Your task to perform on an android device: Show me popular games on the Play Store Image 0: 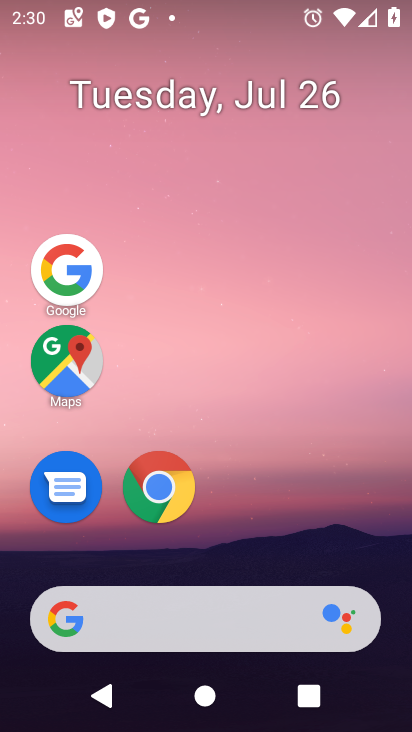
Step 0: drag from (189, 637) to (294, 42)
Your task to perform on an android device: Show me popular games on the Play Store Image 1: 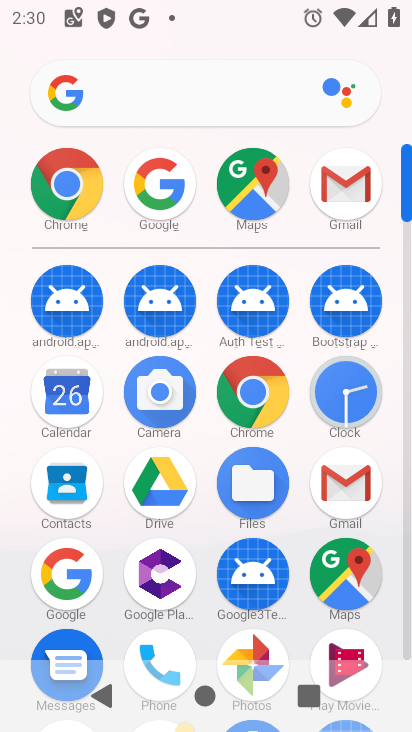
Step 1: drag from (234, 589) to (300, 284)
Your task to perform on an android device: Show me popular games on the Play Store Image 2: 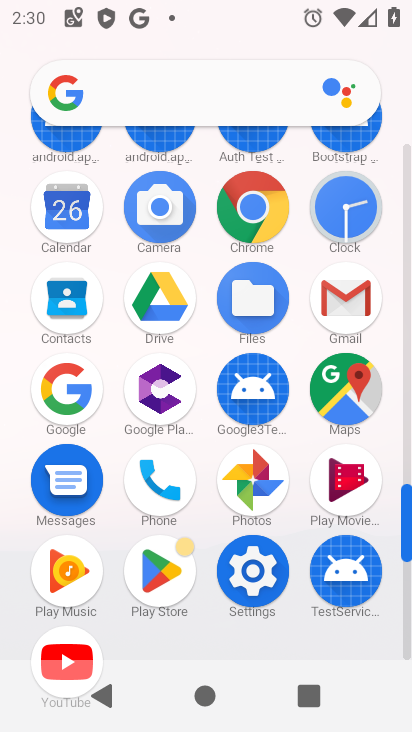
Step 2: click (154, 572)
Your task to perform on an android device: Show me popular games on the Play Store Image 3: 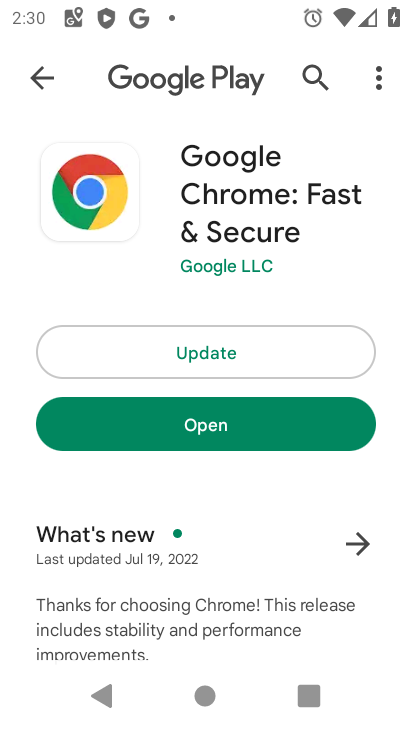
Step 3: click (40, 88)
Your task to perform on an android device: Show me popular games on the Play Store Image 4: 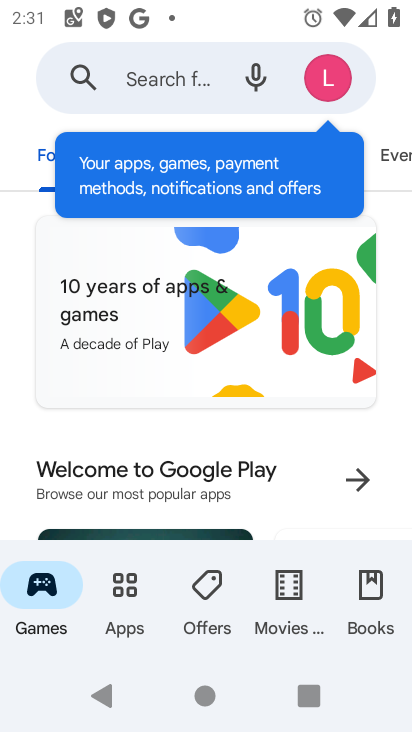
Step 4: click (128, 95)
Your task to perform on an android device: Show me popular games on the Play Store Image 5: 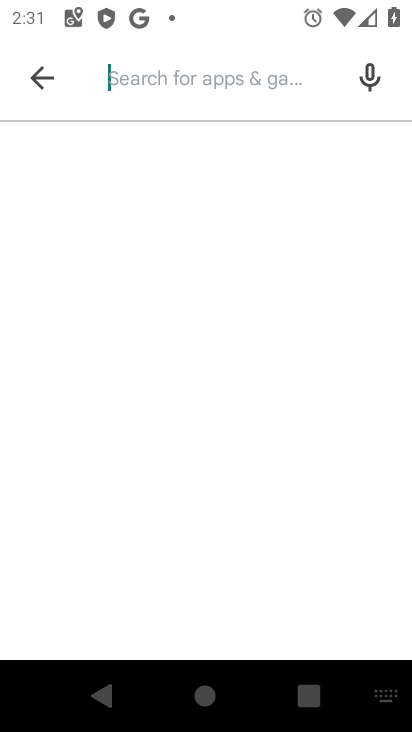
Step 5: task complete